Your task to perform on an android device: Go to internet settings Image 0: 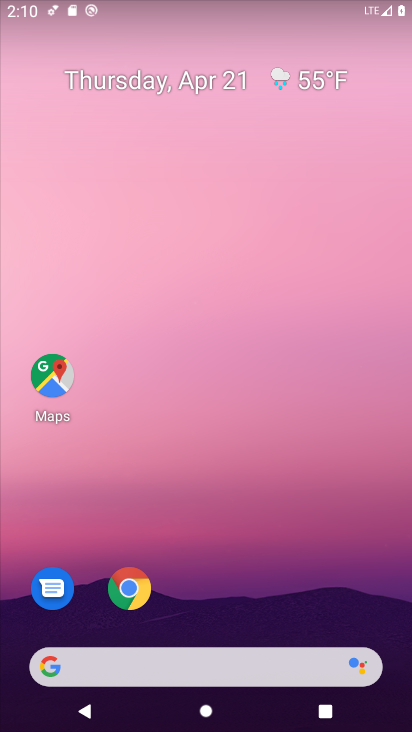
Step 0: drag from (237, 631) to (185, 116)
Your task to perform on an android device: Go to internet settings Image 1: 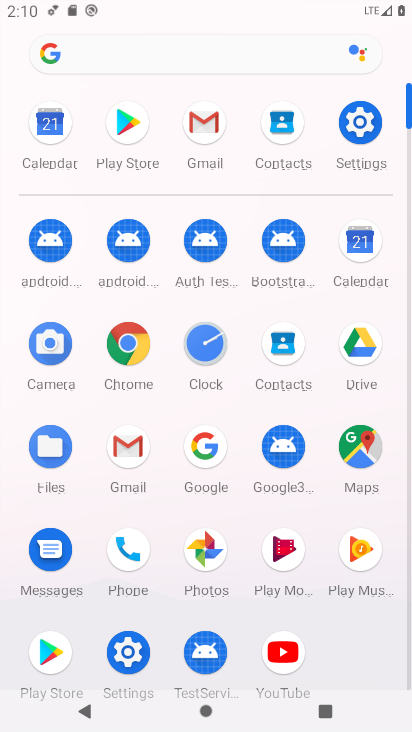
Step 1: click (370, 127)
Your task to perform on an android device: Go to internet settings Image 2: 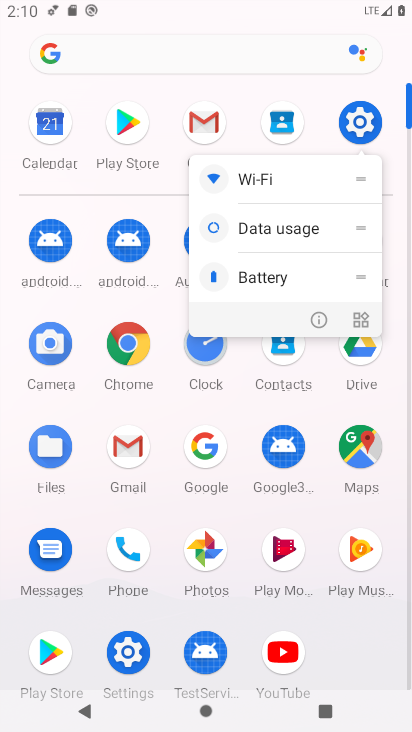
Step 2: click (370, 127)
Your task to perform on an android device: Go to internet settings Image 3: 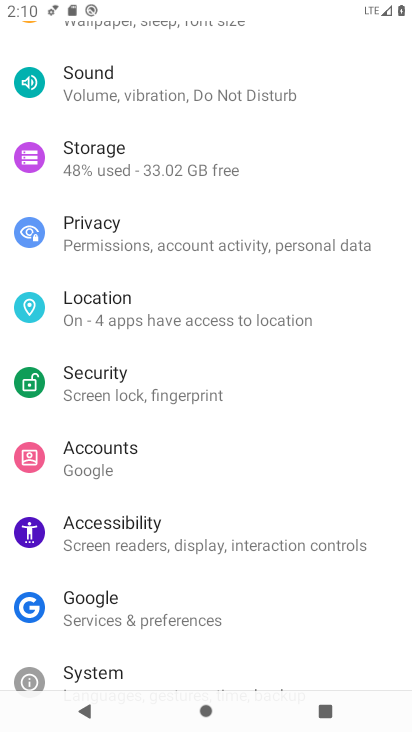
Step 3: drag from (185, 296) to (212, 358)
Your task to perform on an android device: Go to internet settings Image 4: 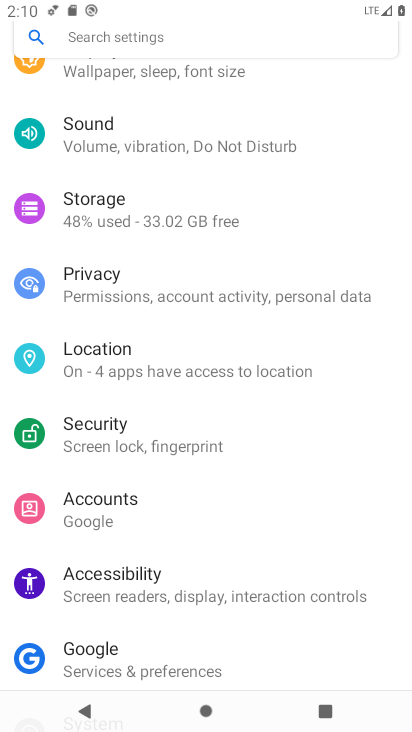
Step 4: drag from (197, 282) to (206, 371)
Your task to perform on an android device: Go to internet settings Image 5: 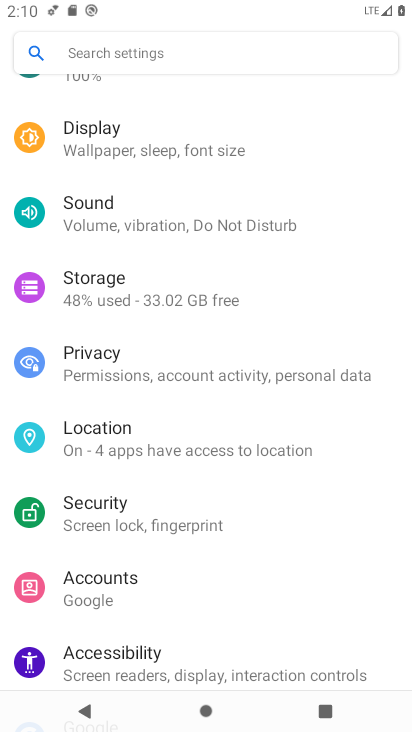
Step 5: drag from (190, 243) to (209, 341)
Your task to perform on an android device: Go to internet settings Image 6: 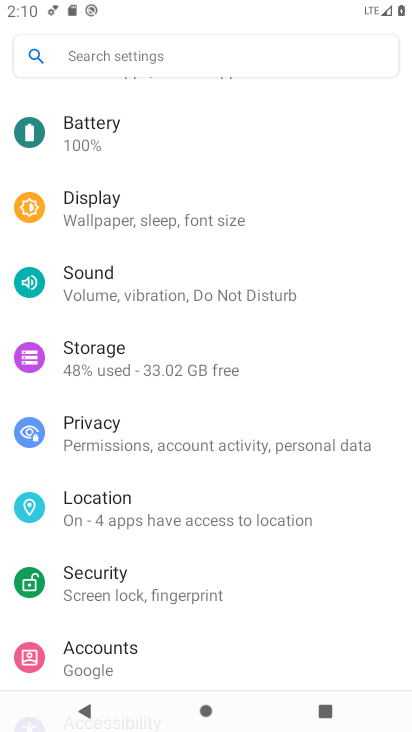
Step 6: drag from (191, 284) to (219, 337)
Your task to perform on an android device: Go to internet settings Image 7: 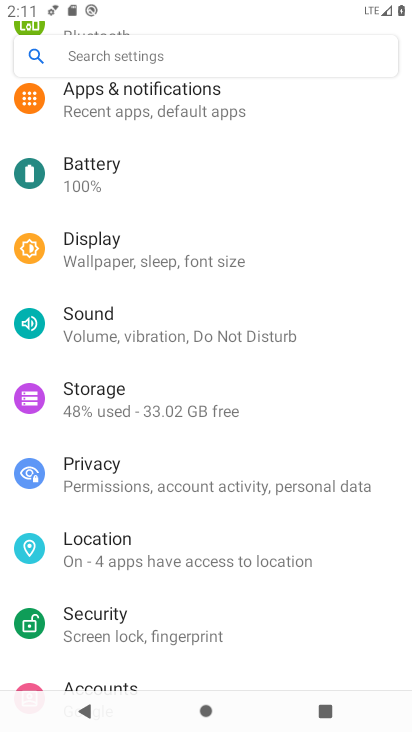
Step 7: drag from (201, 304) to (259, 430)
Your task to perform on an android device: Go to internet settings Image 8: 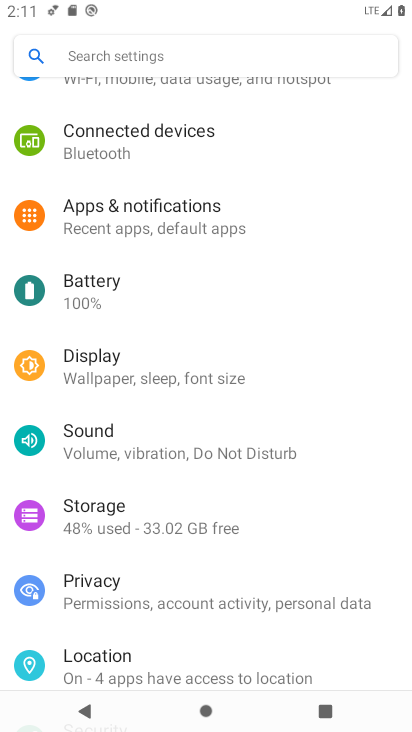
Step 8: drag from (149, 347) to (184, 418)
Your task to perform on an android device: Go to internet settings Image 9: 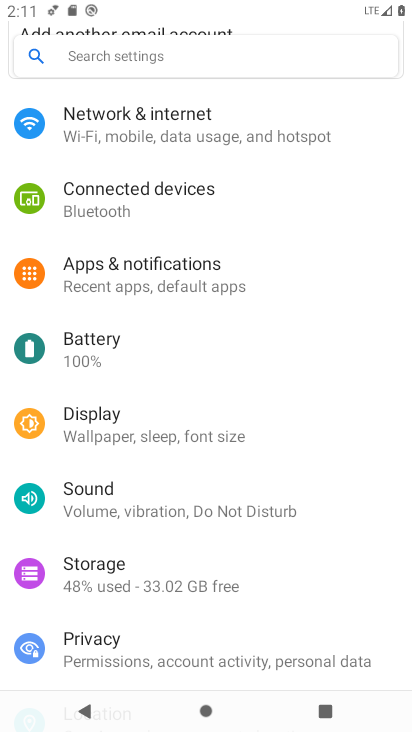
Step 9: drag from (137, 336) to (157, 386)
Your task to perform on an android device: Go to internet settings Image 10: 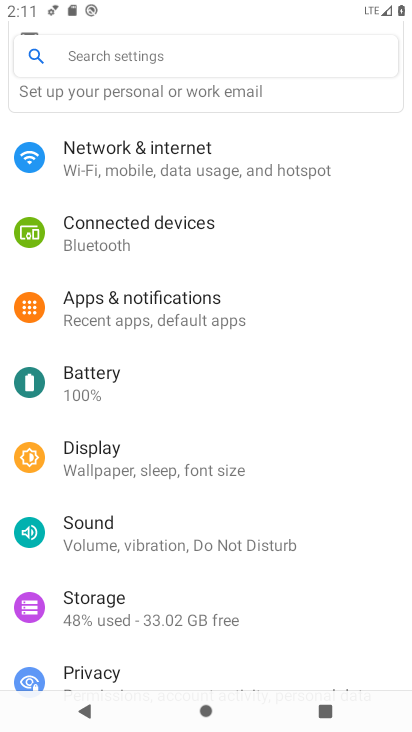
Step 10: drag from (113, 324) to (124, 402)
Your task to perform on an android device: Go to internet settings Image 11: 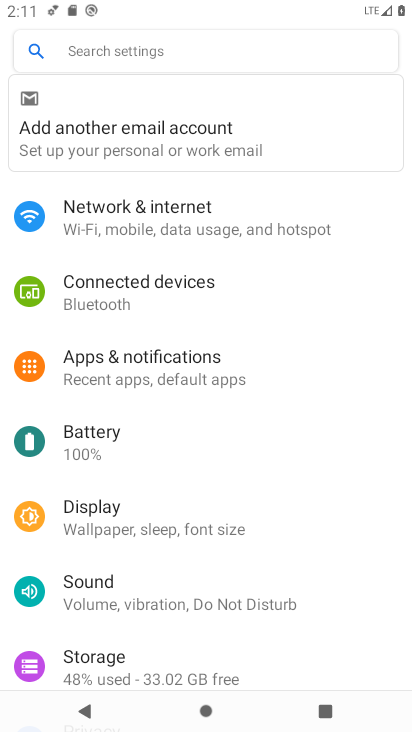
Step 11: click (103, 221)
Your task to perform on an android device: Go to internet settings Image 12: 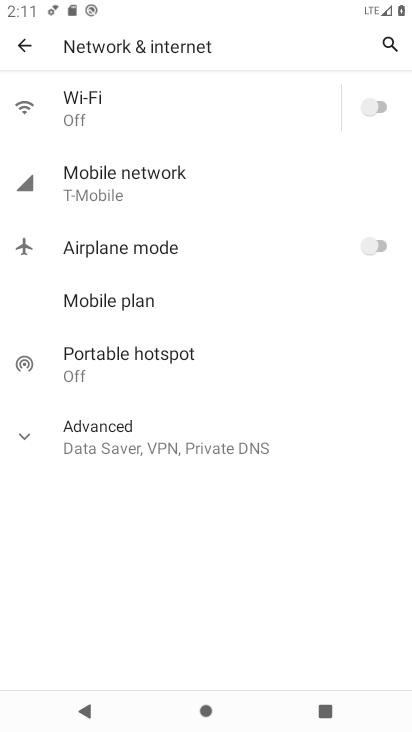
Step 12: click (94, 203)
Your task to perform on an android device: Go to internet settings Image 13: 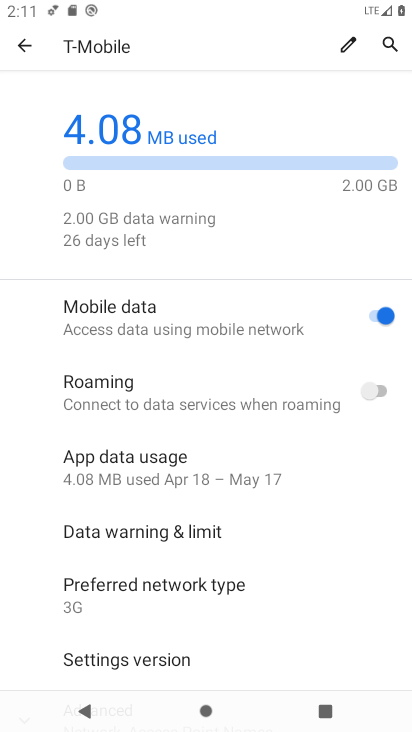
Step 13: task complete